Your task to perform on an android device: Go to Maps Image 0: 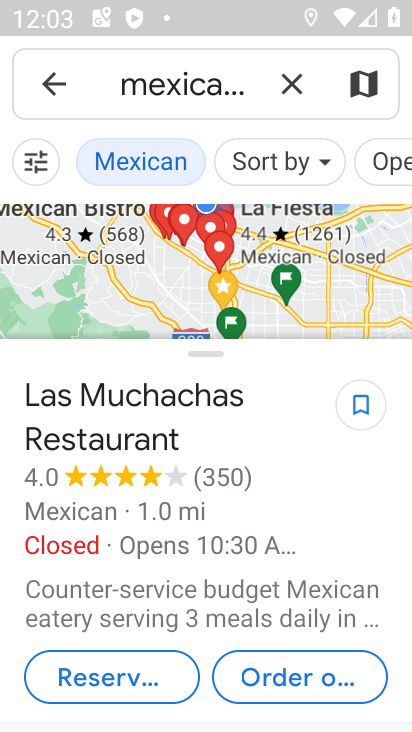
Step 0: click (302, 92)
Your task to perform on an android device: Go to Maps Image 1: 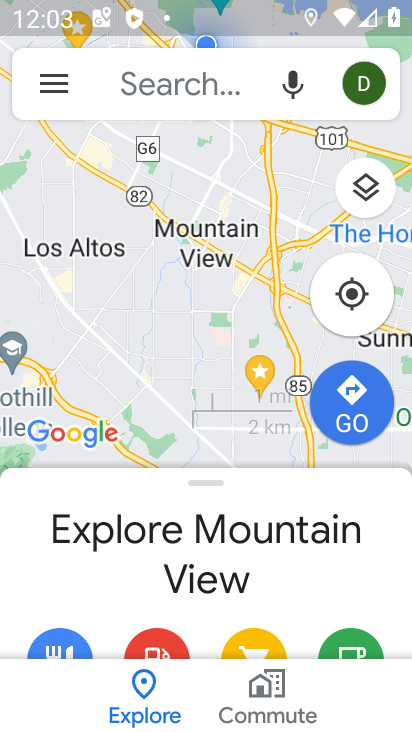
Step 1: task complete